Your task to perform on an android device: turn off notifications in google photos Image 0: 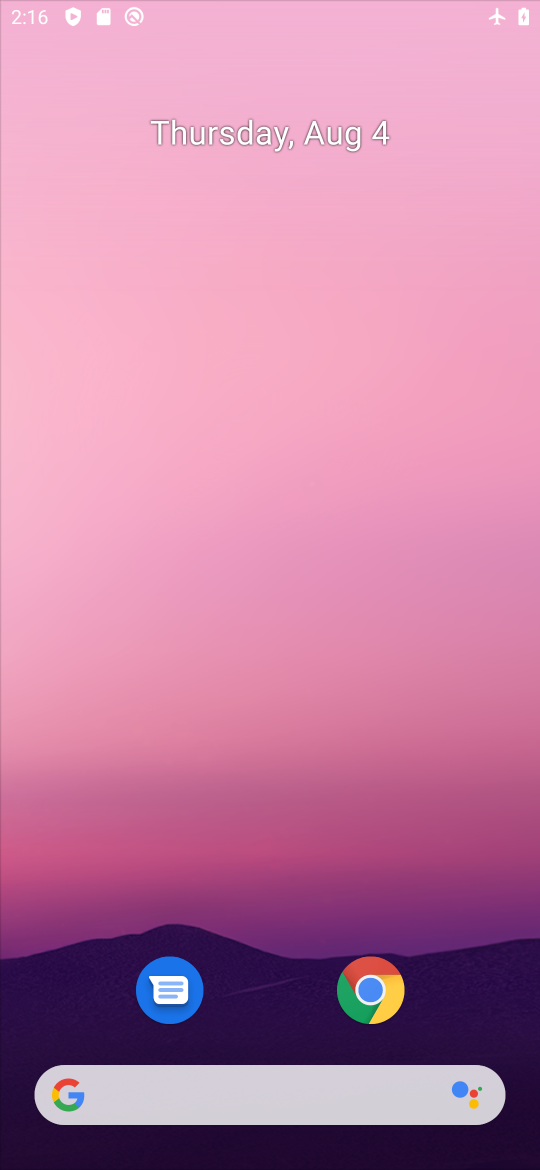
Step 0: press home button
Your task to perform on an android device: turn off notifications in google photos Image 1: 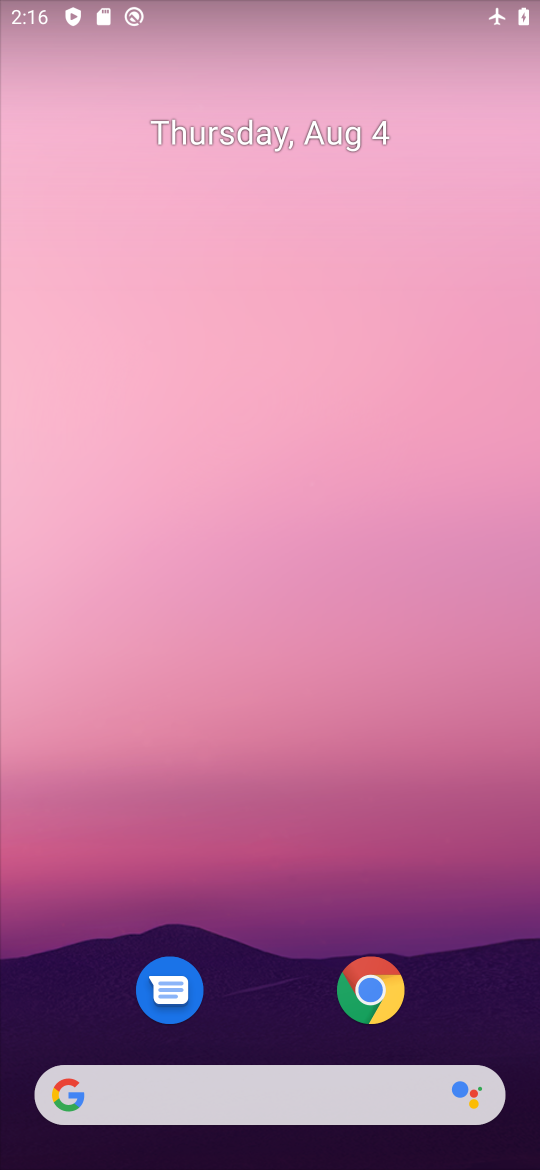
Step 1: drag from (293, 1027) to (254, 196)
Your task to perform on an android device: turn off notifications in google photos Image 2: 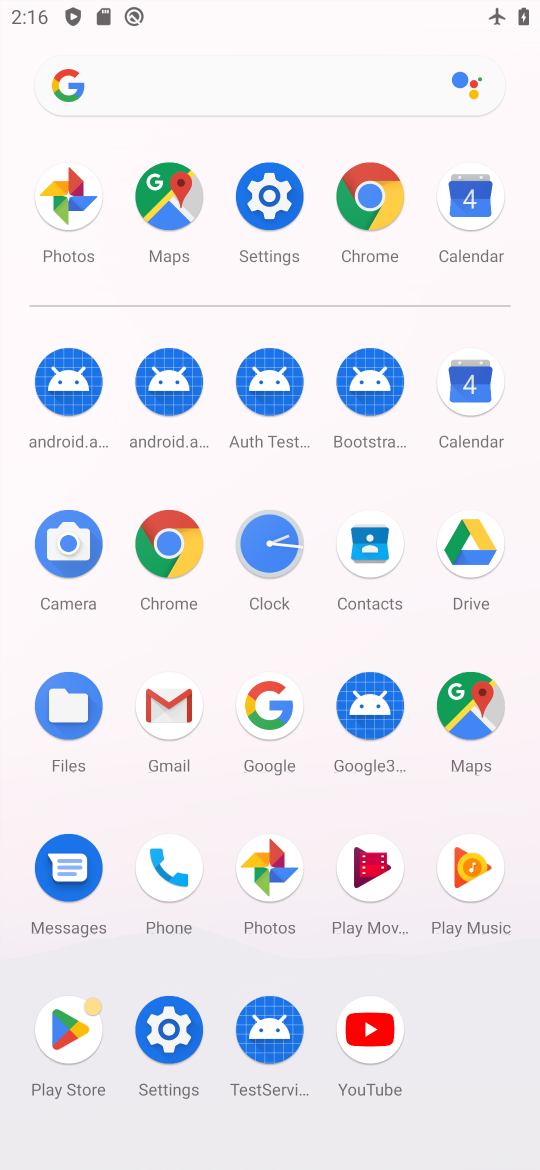
Step 2: click (77, 245)
Your task to perform on an android device: turn off notifications in google photos Image 3: 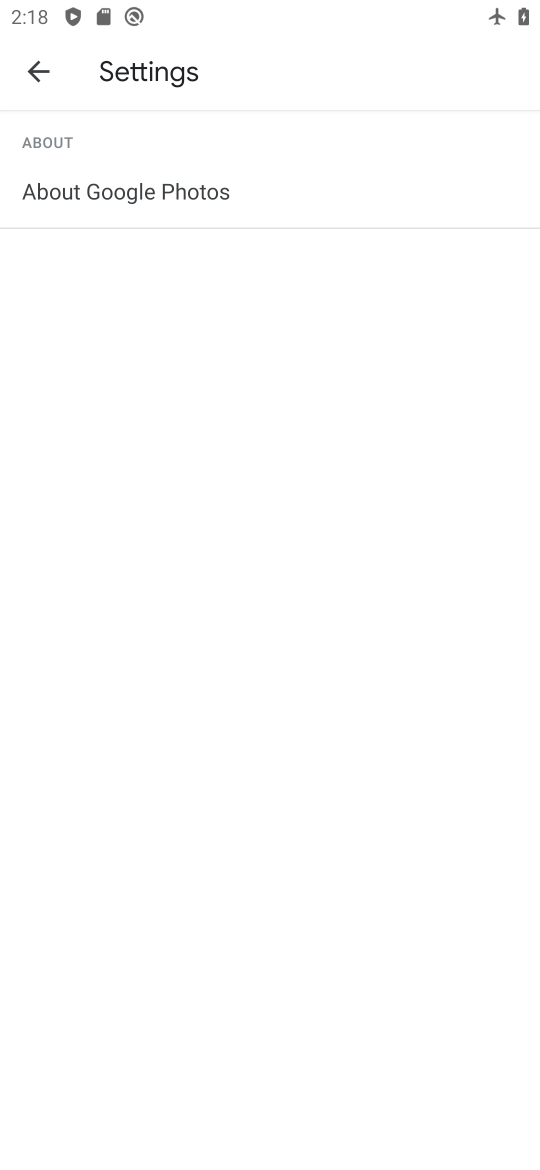
Step 3: task complete